Your task to perform on an android device: Go to internet settings Image 0: 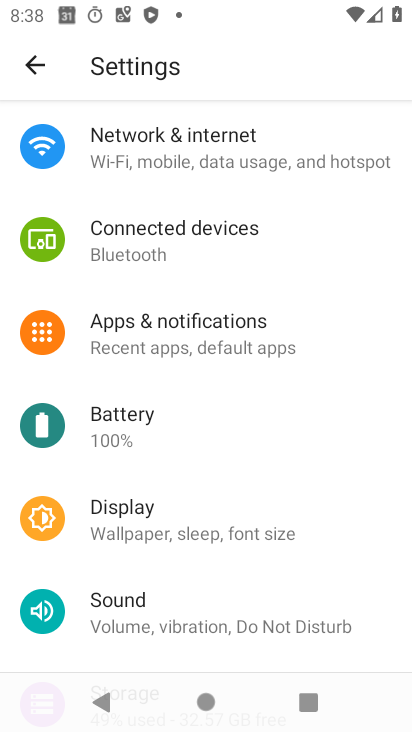
Step 0: click (227, 167)
Your task to perform on an android device: Go to internet settings Image 1: 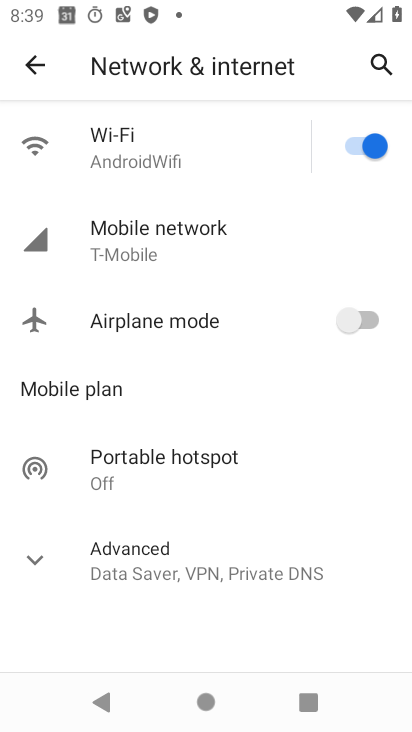
Step 1: click (107, 234)
Your task to perform on an android device: Go to internet settings Image 2: 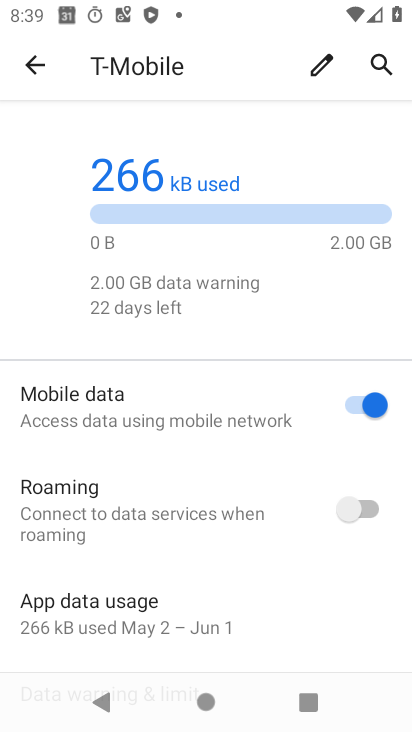
Step 2: task complete